Your task to perform on an android device: turn notification dots on Image 0: 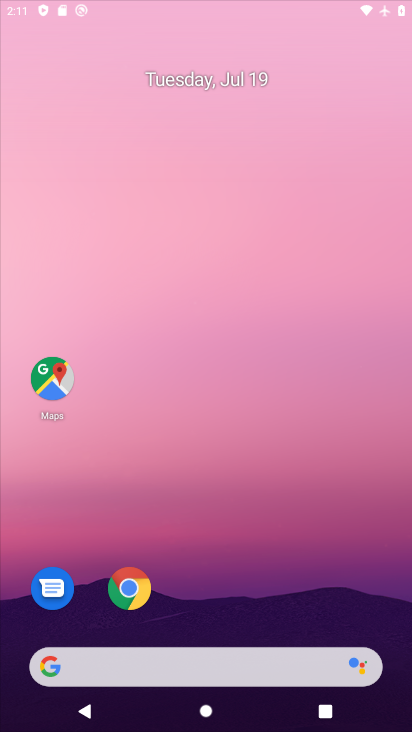
Step 0: press home button
Your task to perform on an android device: turn notification dots on Image 1: 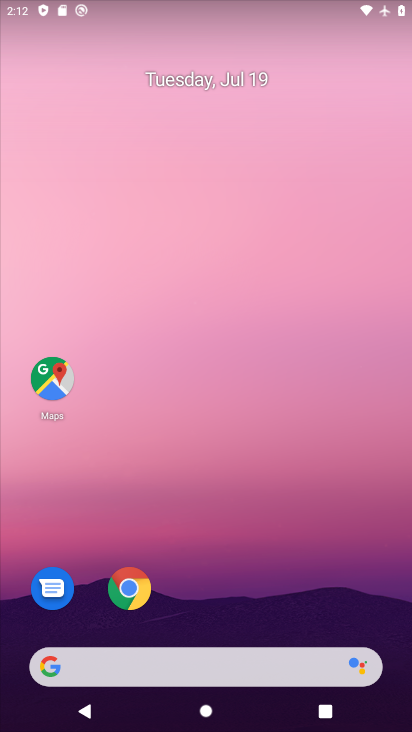
Step 1: drag from (225, 626) to (258, 78)
Your task to perform on an android device: turn notification dots on Image 2: 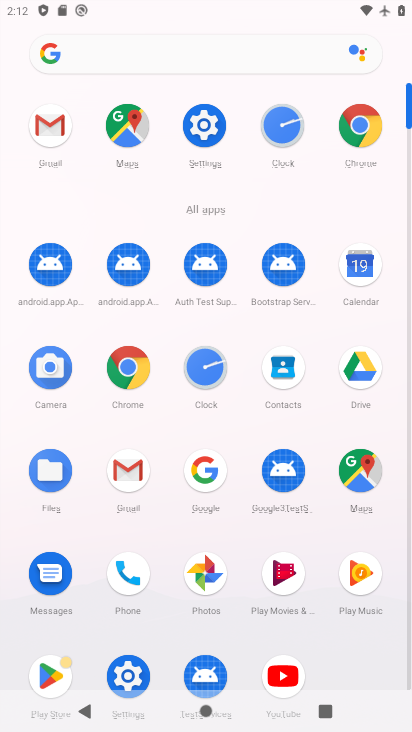
Step 2: click (199, 139)
Your task to perform on an android device: turn notification dots on Image 3: 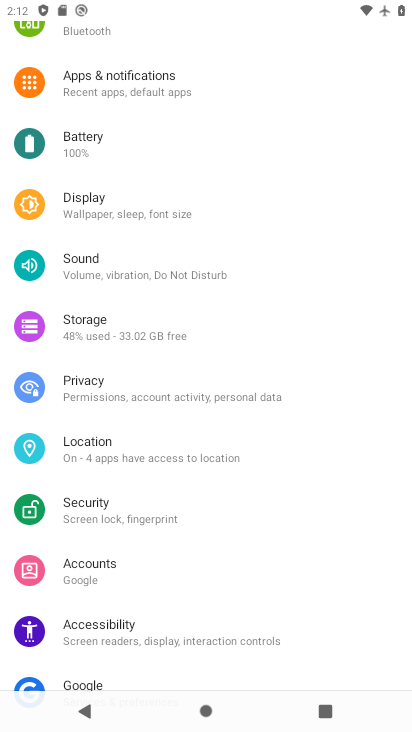
Step 3: click (121, 90)
Your task to perform on an android device: turn notification dots on Image 4: 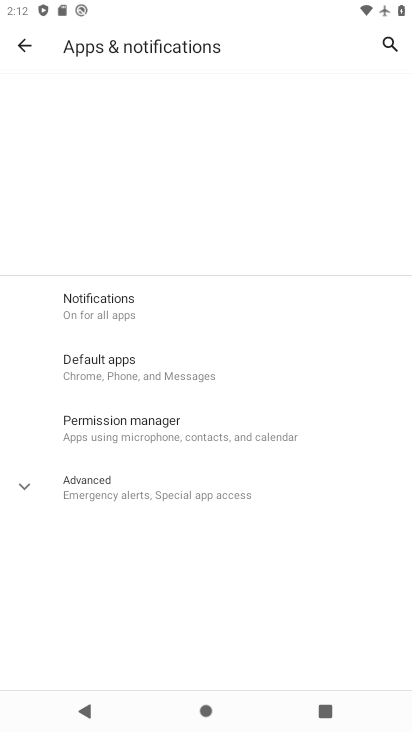
Step 4: click (115, 322)
Your task to perform on an android device: turn notification dots on Image 5: 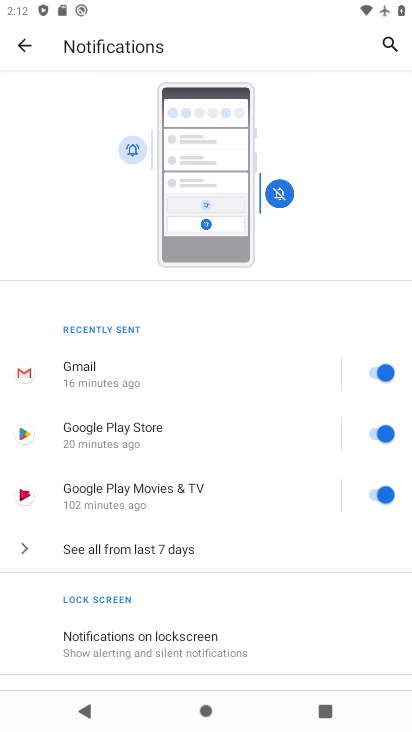
Step 5: drag from (251, 605) to (211, 247)
Your task to perform on an android device: turn notification dots on Image 6: 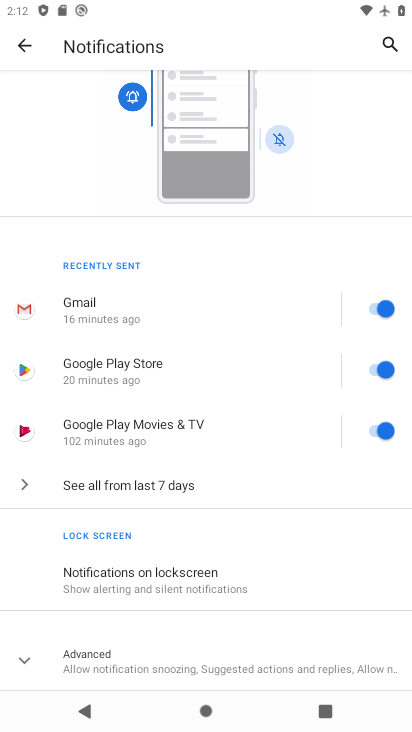
Step 6: click (105, 663)
Your task to perform on an android device: turn notification dots on Image 7: 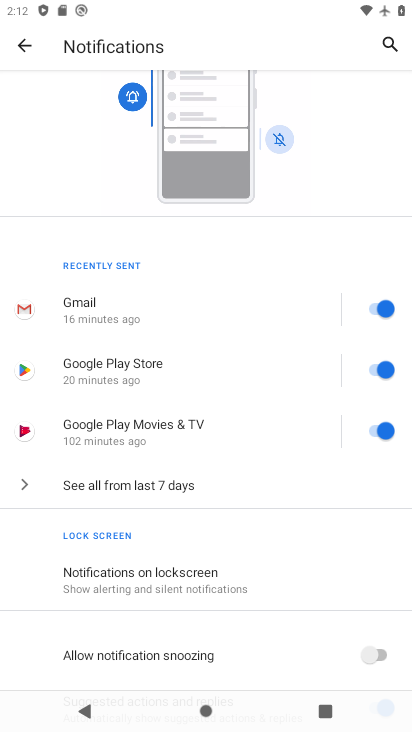
Step 7: task complete